Your task to perform on an android device: open a bookmark in the chrome app Image 0: 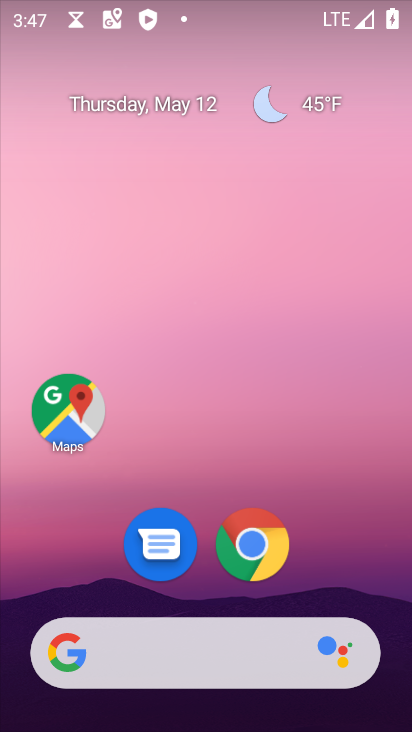
Step 0: click (245, 544)
Your task to perform on an android device: open a bookmark in the chrome app Image 1: 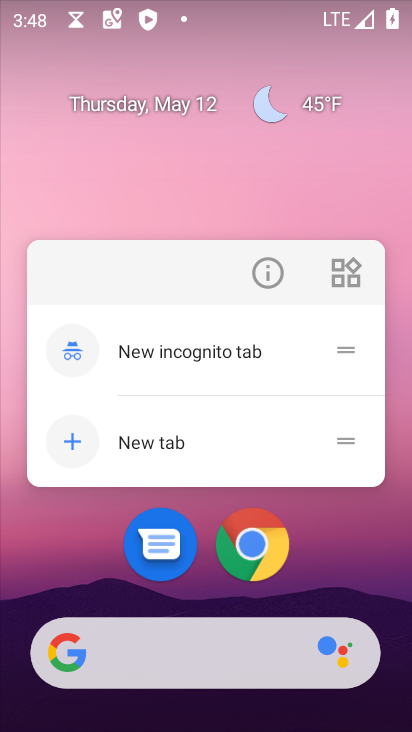
Step 1: click (245, 544)
Your task to perform on an android device: open a bookmark in the chrome app Image 2: 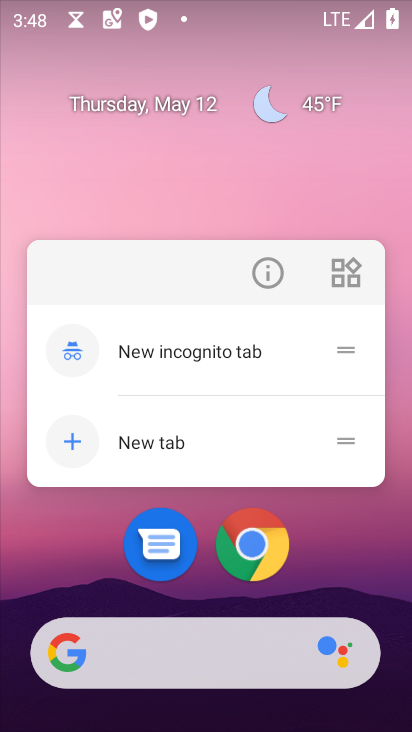
Step 2: click (245, 544)
Your task to perform on an android device: open a bookmark in the chrome app Image 3: 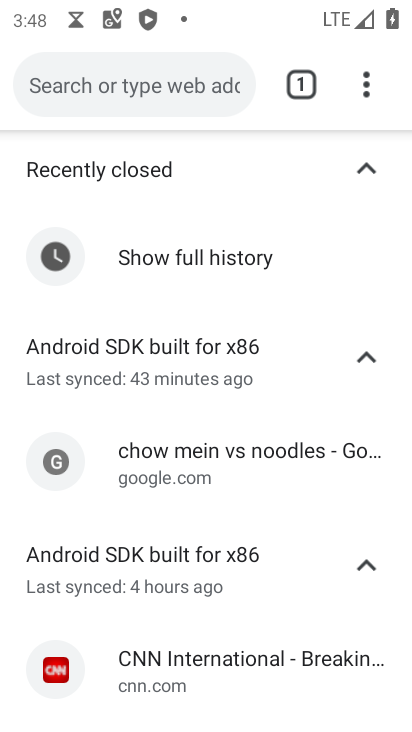
Step 3: click (353, 99)
Your task to perform on an android device: open a bookmark in the chrome app Image 4: 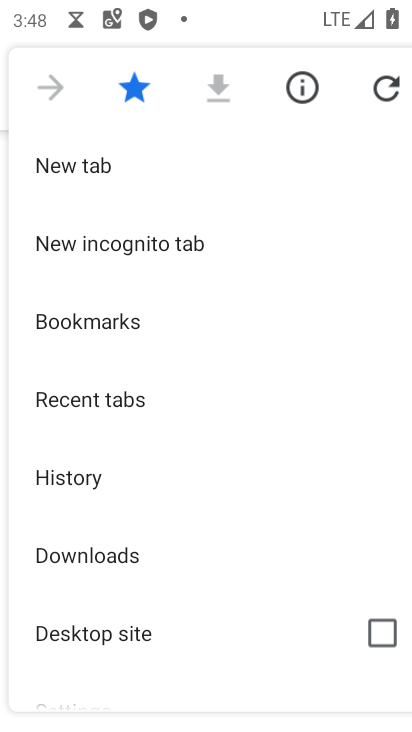
Step 4: click (133, 314)
Your task to perform on an android device: open a bookmark in the chrome app Image 5: 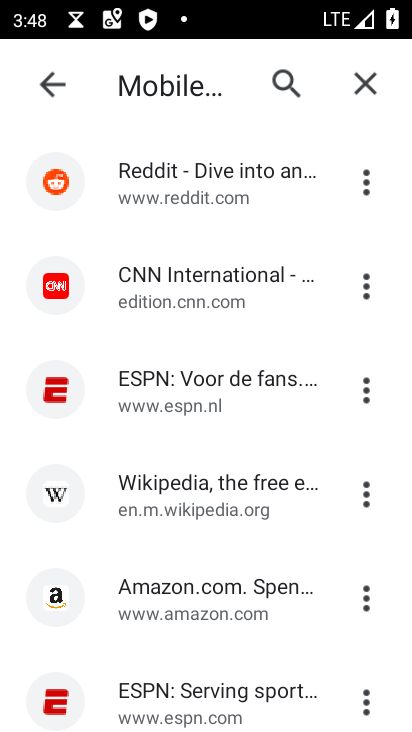
Step 5: click (204, 489)
Your task to perform on an android device: open a bookmark in the chrome app Image 6: 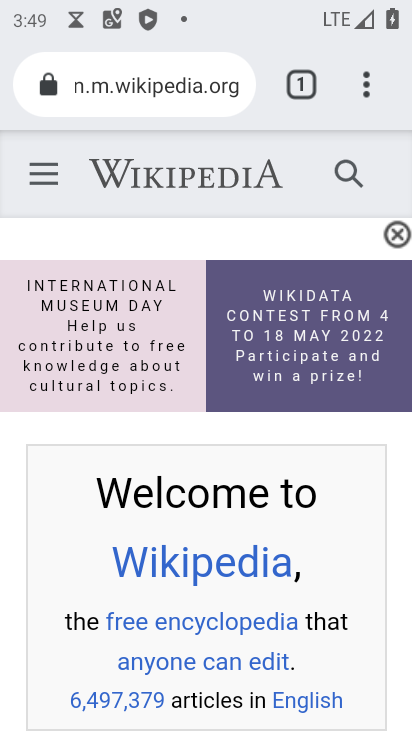
Step 6: task complete